Your task to perform on an android device: Show me popular videos on Youtube Image 0: 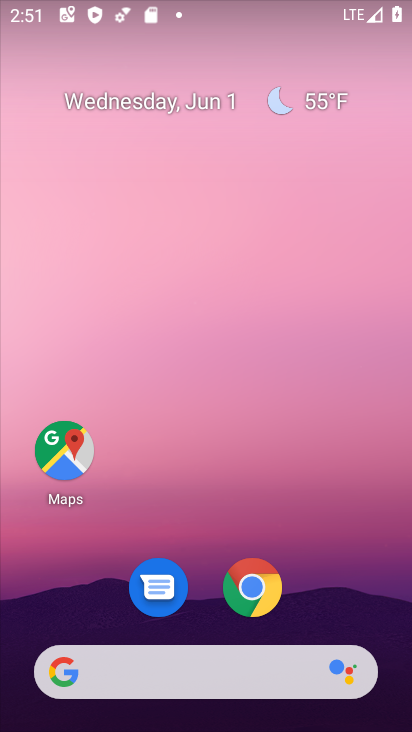
Step 0: drag from (210, 655) to (393, 71)
Your task to perform on an android device: Show me popular videos on Youtube Image 1: 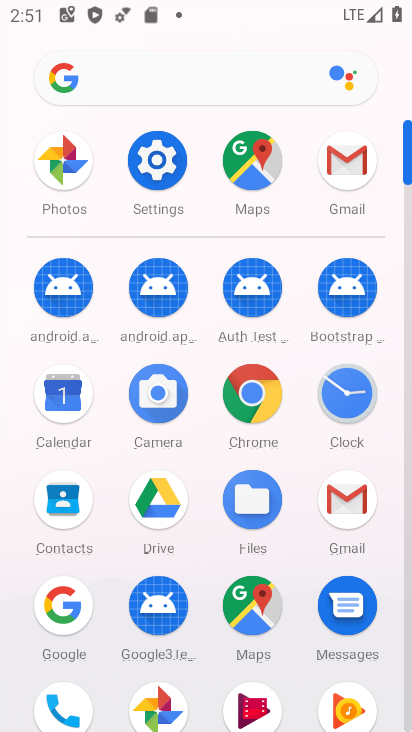
Step 1: drag from (278, 521) to (308, 9)
Your task to perform on an android device: Show me popular videos on Youtube Image 2: 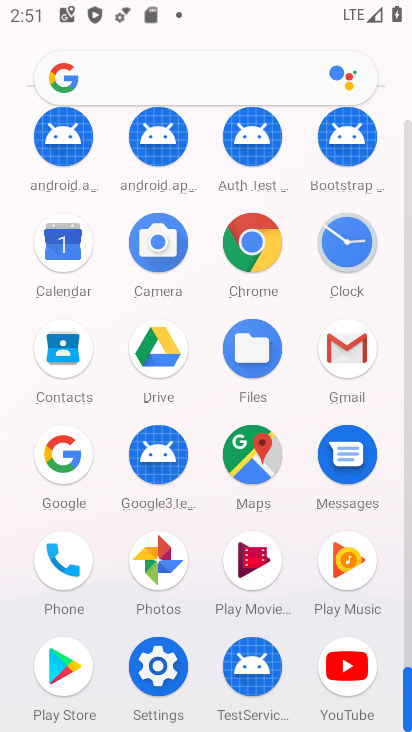
Step 2: click (346, 650)
Your task to perform on an android device: Show me popular videos on Youtube Image 3: 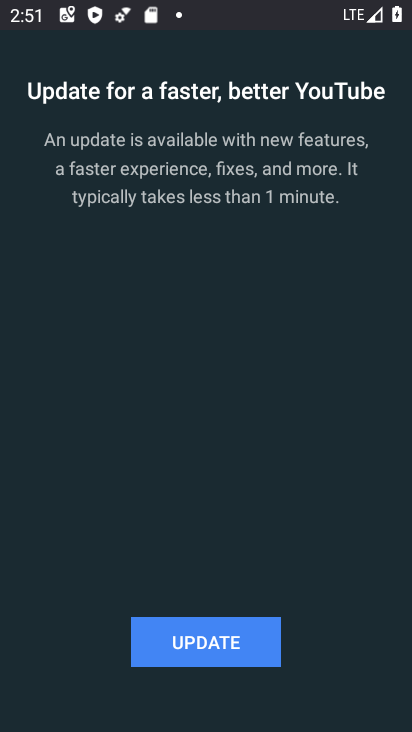
Step 3: click (198, 652)
Your task to perform on an android device: Show me popular videos on Youtube Image 4: 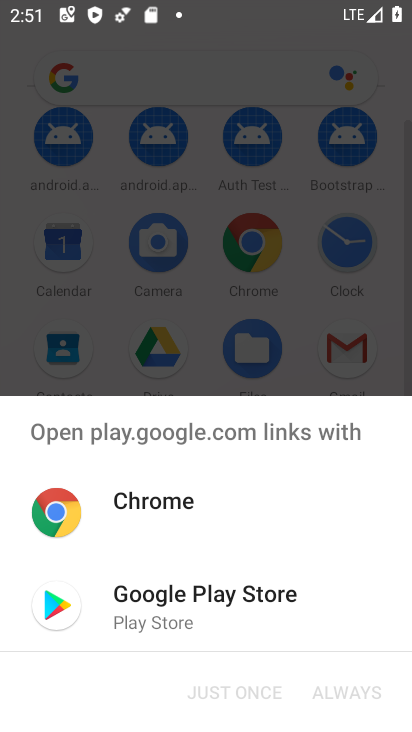
Step 4: click (224, 580)
Your task to perform on an android device: Show me popular videos on Youtube Image 5: 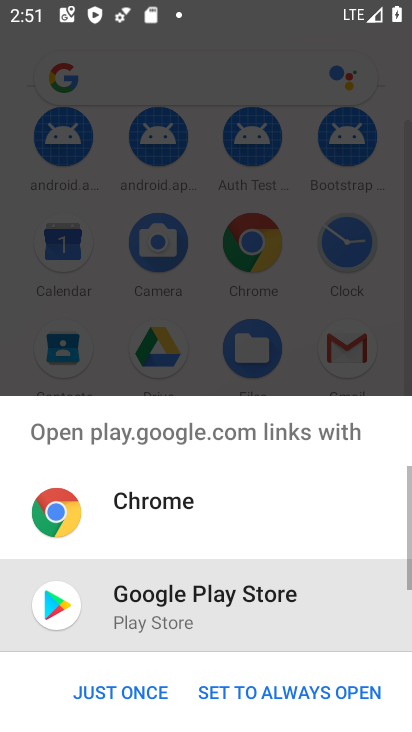
Step 5: click (119, 698)
Your task to perform on an android device: Show me popular videos on Youtube Image 6: 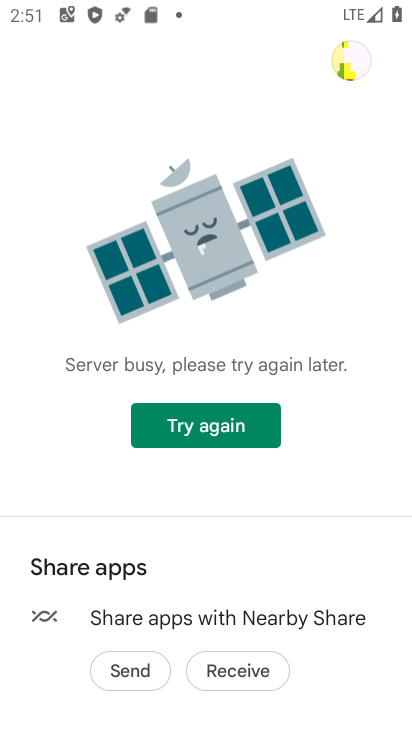
Step 6: task complete